Your task to perform on an android device: check the backup settings in the google photos Image 0: 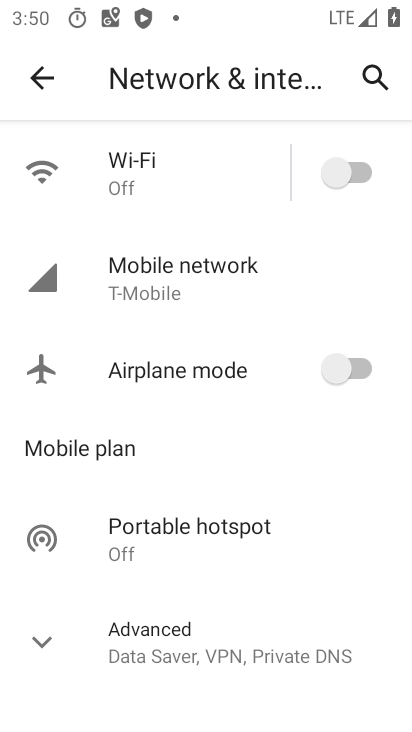
Step 0: press home button
Your task to perform on an android device: check the backup settings in the google photos Image 1: 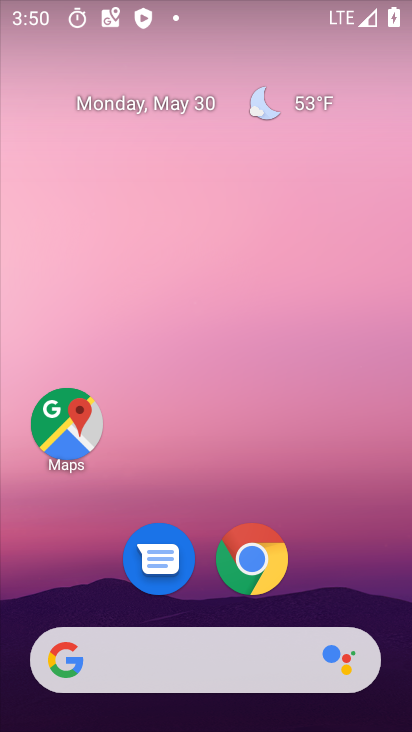
Step 1: drag from (223, 725) to (205, 97)
Your task to perform on an android device: check the backup settings in the google photos Image 2: 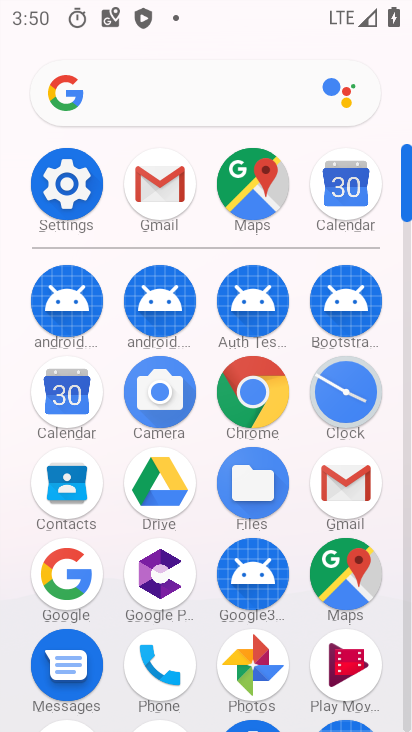
Step 2: click (253, 661)
Your task to perform on an android device: check the backup settings in the google photos Image 3: 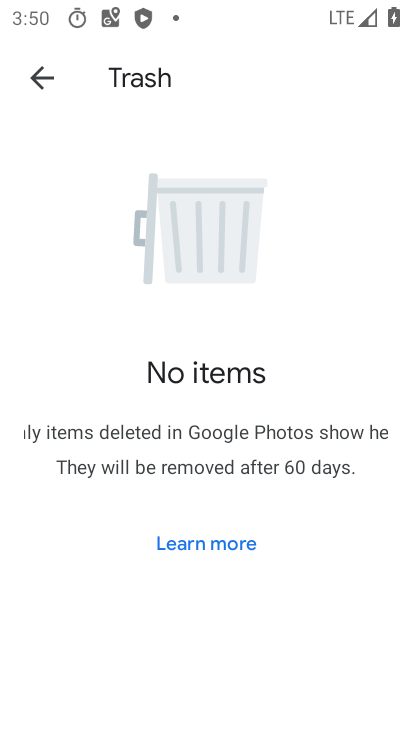
Step 3: click (41, 68)
Your task to perform on an android device: check the backup settings in the google photos Image 4: 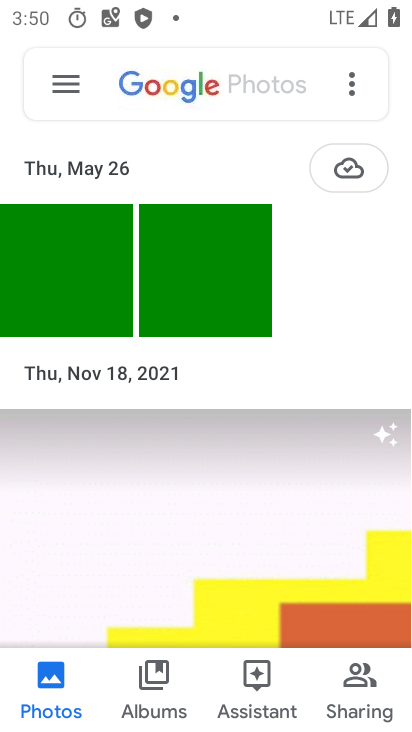
Step 4: click (60, 86)
Your task to perform on an android device: check the backup settings in the google photos Image 5: 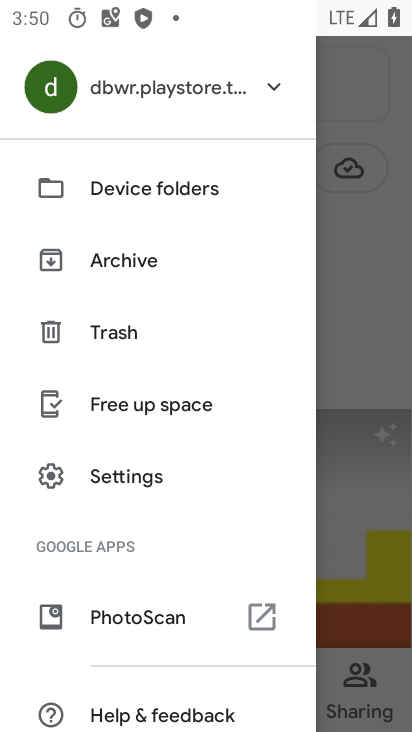
Step 5: click (120, 467)
Your task to perform on an android device: check the backup settings in the google photos Image 6: 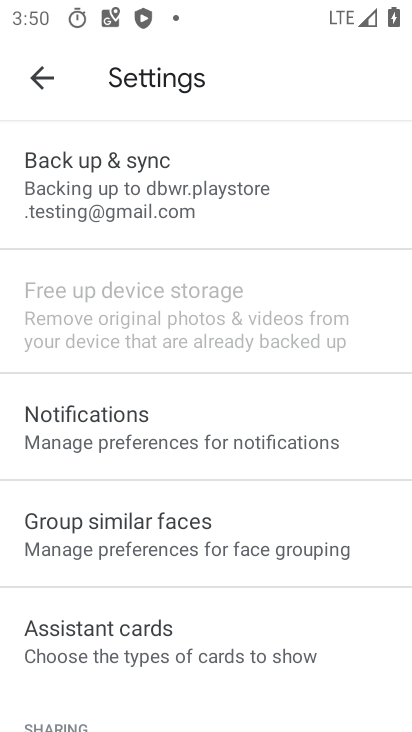
Step 6: click (121, 182)
Your task to perform on an android device: check the backup settings in the google photos Image 7: 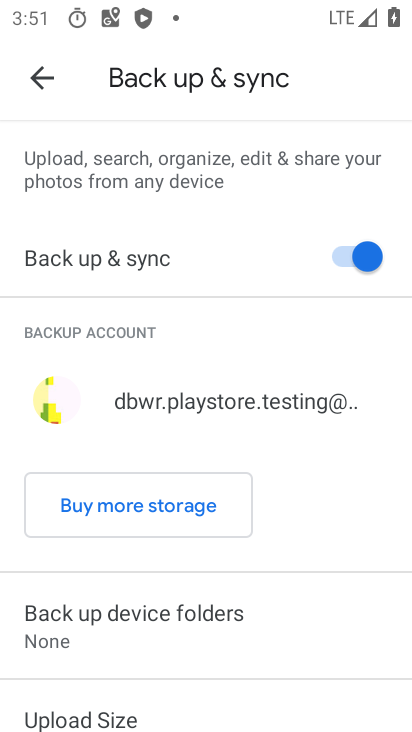
Step 7: task complete